Your task to perform on an android device: Open the stopwatch Image 0: 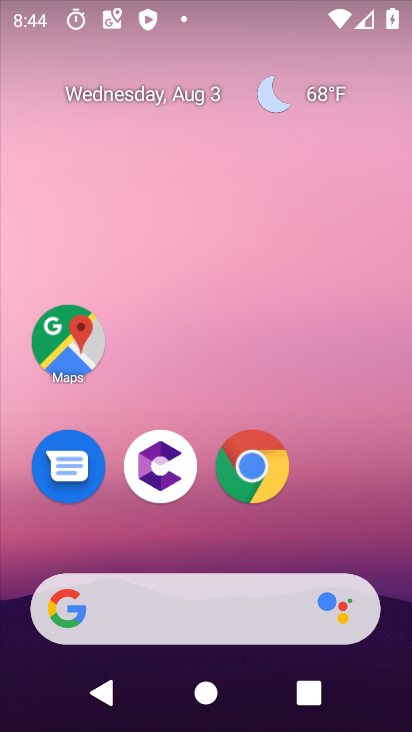
Step 0: drag from (363, 468) to (343, 17)
Your task to perform on an android device: Open the stopwatch Image 1: 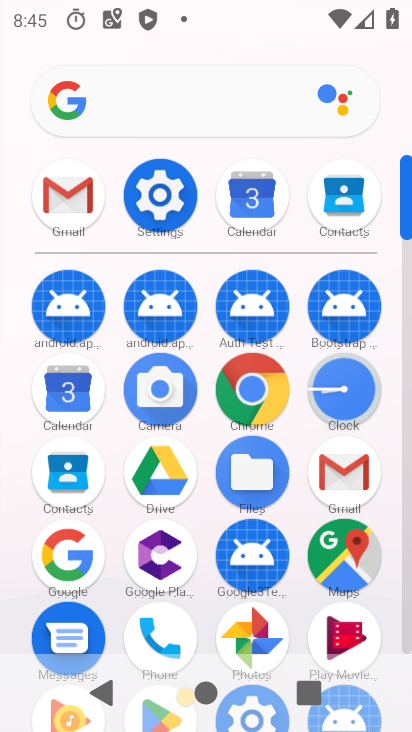
Step 1: click (340, 405)
Your task to perform on an android device: Open the stopwatch Image 2: 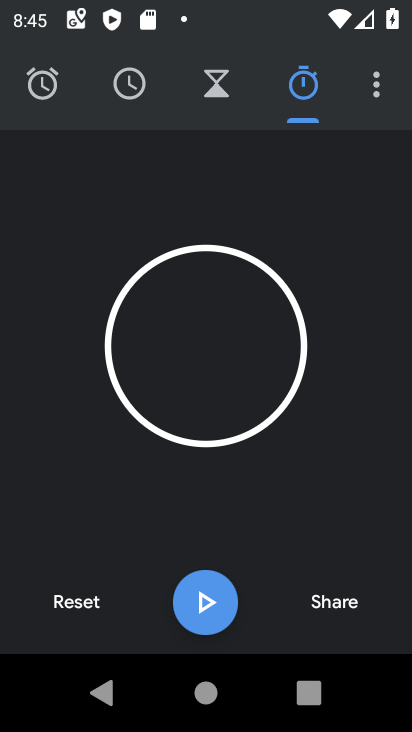
Step 2: task complete